Your task to perform on an android device: Show me productivity apps on the Play Store Image 0: 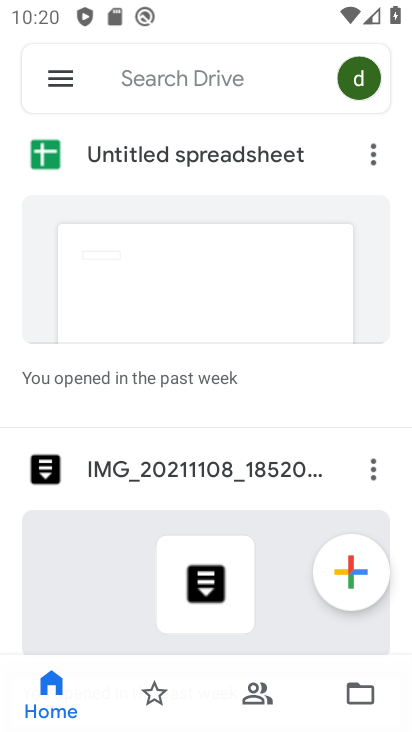
Step 0: press home button
Your task to perform on an android device: Show me productivity apps on the Play Store Image 1: 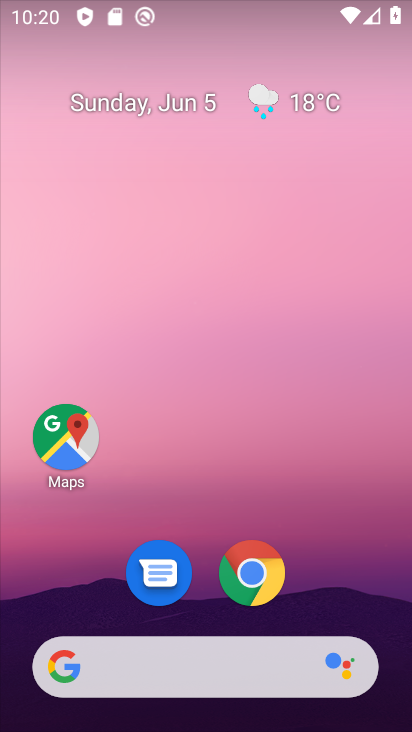
Step 1: drag from (77, 633) to (237, 30)
Your task to perform on an android device: Show me productivity apps on the Play Store Image 2: 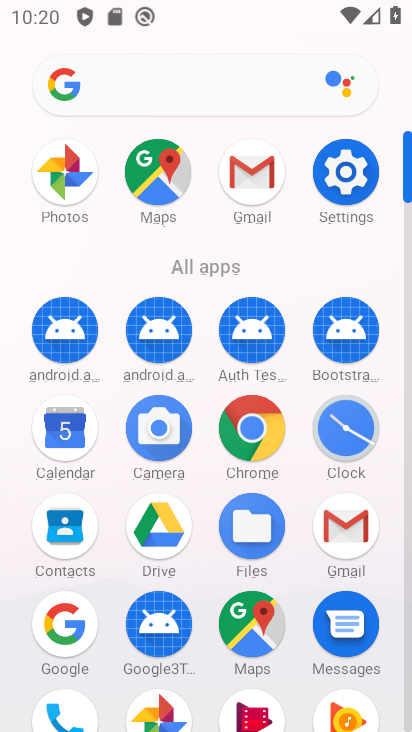
Step 2: drag from (184, 700) to (279, 324)
Your task to perform on an android device: Show me productivity apps on the Play Store Image 3: 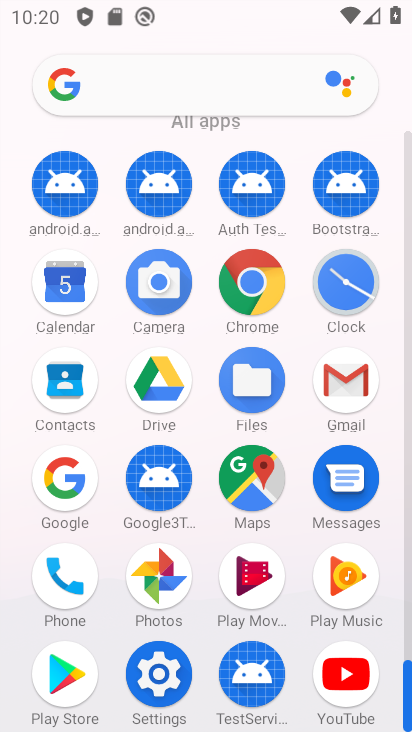
Step 3: click (50, 680)
Your task to perform on an android device: Show me productivity apps on the Play Store Image 4: 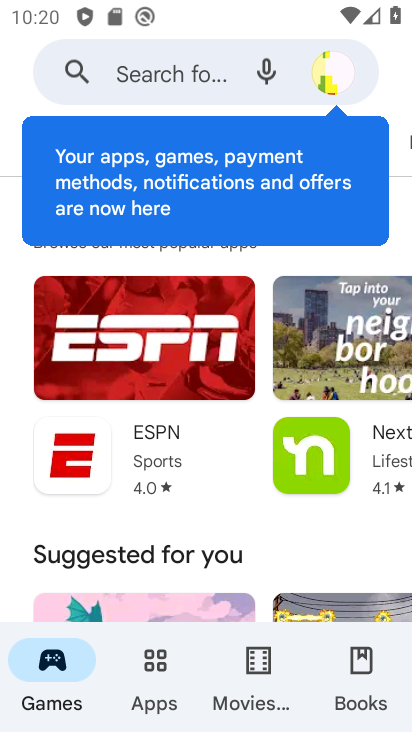
Step 4: click (162, 689)
Your task to perform on an android device: Show me productivity apps on the Play Store Image 5: 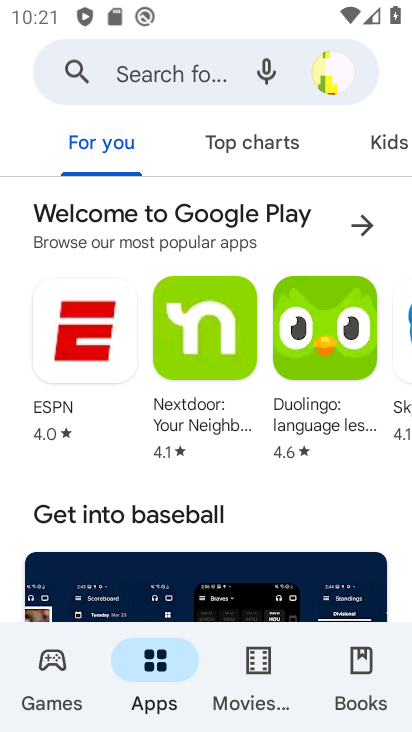
Step 5: drag from (350, 154) to (78, 150)
Your task to perform on an android device: Show me productivity apps on the Play Store Image 6: 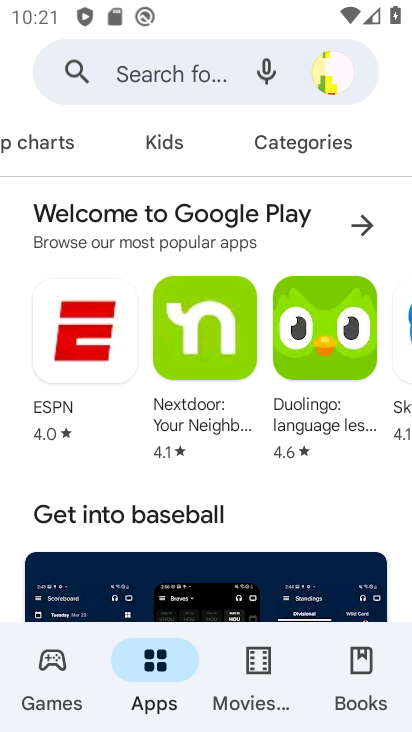
Step 6: click (264, 147)
Your task to perform on an android device: Show me productivity apps on the Play Store Image 7: 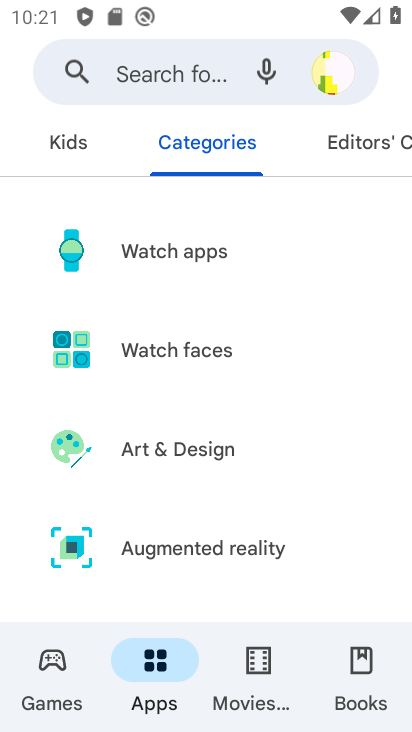
Step 7: drag from (185, 559) to (283, 157)
Your task to perform on an android device: Show me productivity apps on the Play Store Image 8: 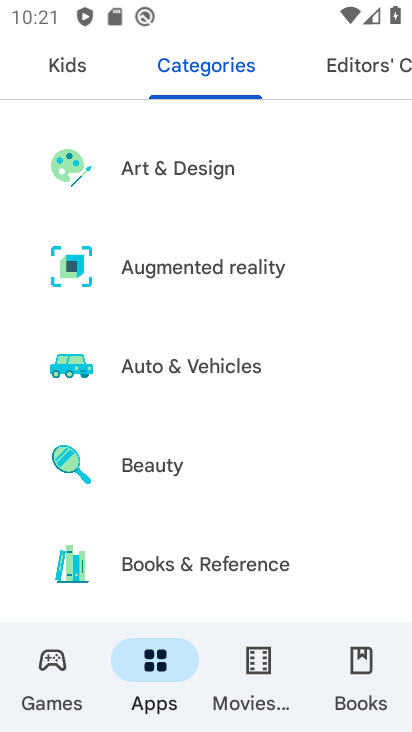
Step 8: drag from (192, 568) to (275, 196)
Your task to perform on an android device: Show me productivity apps on the Play Store Image 9: 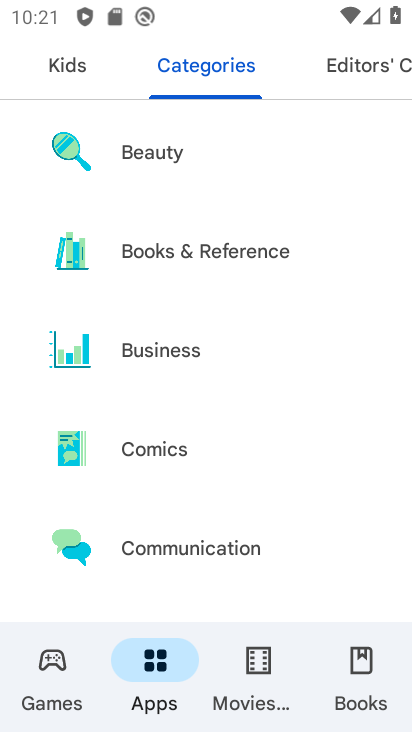
Step 9: drag from (207, 599) to (313, 179)
Your task to perform on an android device: Show me productivity apps on the Play Store Image 10: 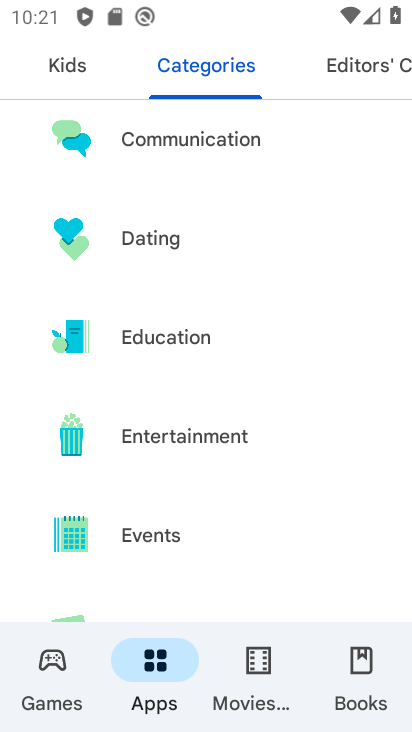
Step 10: drag from (263, 485) to (321, 143)
Your task to perform on an android device: Show me productivity apps on the Play Store Image 11: 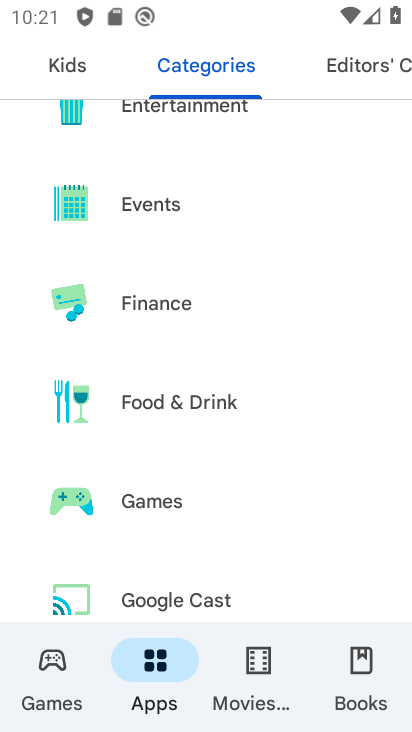
Step 11: drag from (236, 495) to (303, 196)
Your task to perform on an android device: Show me productivity apps on the Play Store Image 12: 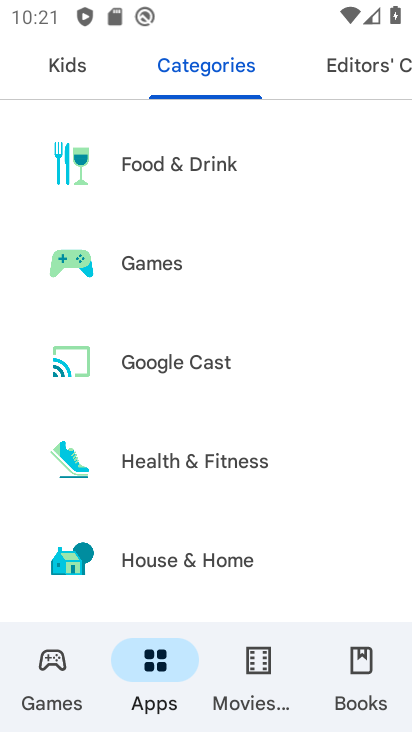
Step 12: drag from (156, 547) to (247, 194)
Your task to perform on an android device: Show me productivity apps on the Play Store Image 13: 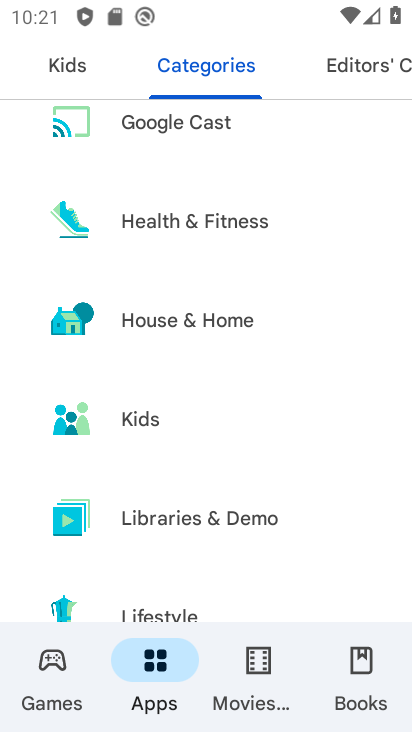
Step 13: drag from (135, 533) to (259, 124)
Your task to perform on an android device: Show me productivity apps on the Play Store Image 14: 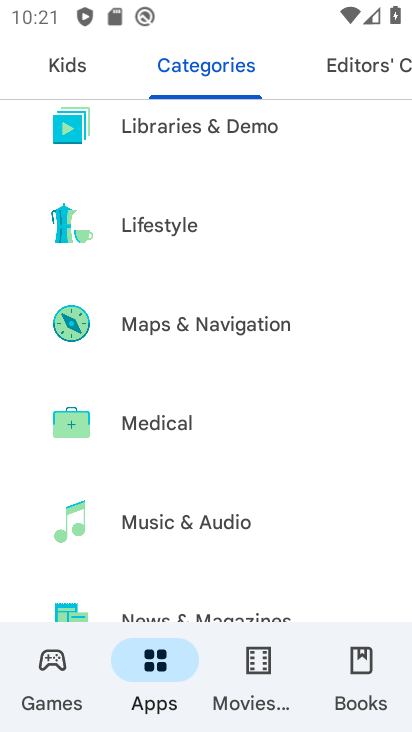
Step 14: drag from (196, 504) to (299, 183)
Your task to perform on an android device: Show me productivity apps on the Play Store Image 15: 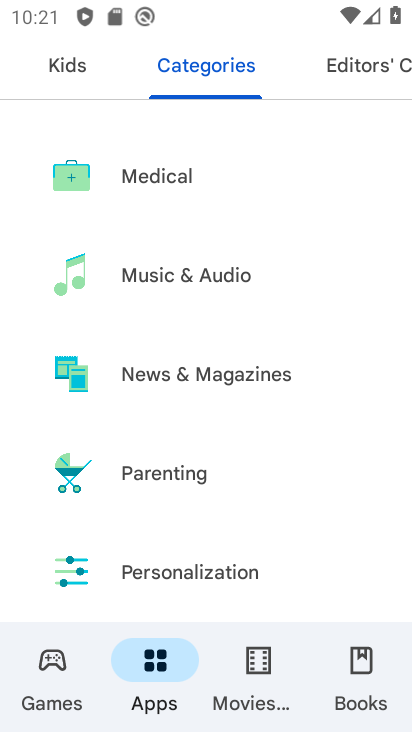
Step 15: drag from (201, 563) to (268, 259)
Your task to perform on an android device: Show me productivity apps on the Play Store Image 16: 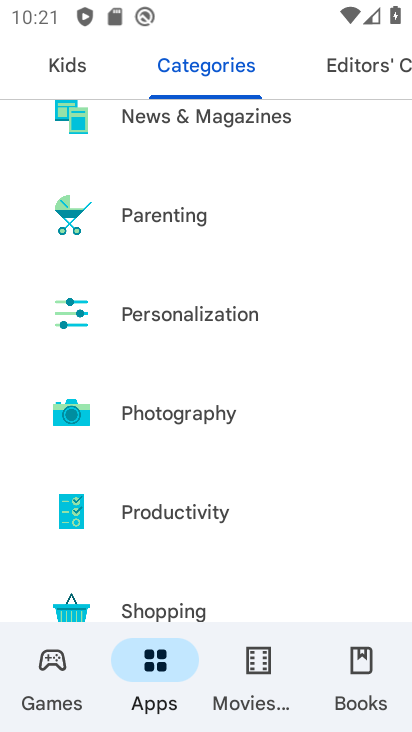
Step 16: click (166, 521)
Your task to perform on an android device: Show me productivity apps on the Play Store Image 17: 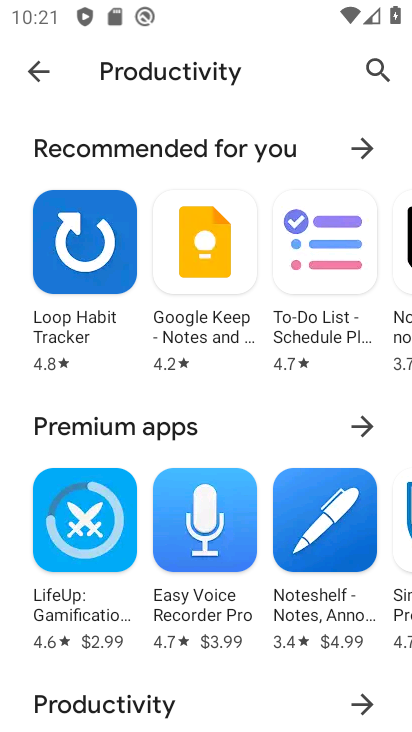
Step 17: task complete